Your task to perform on an android device: turn on showing notifications on the lock screen Image 0: 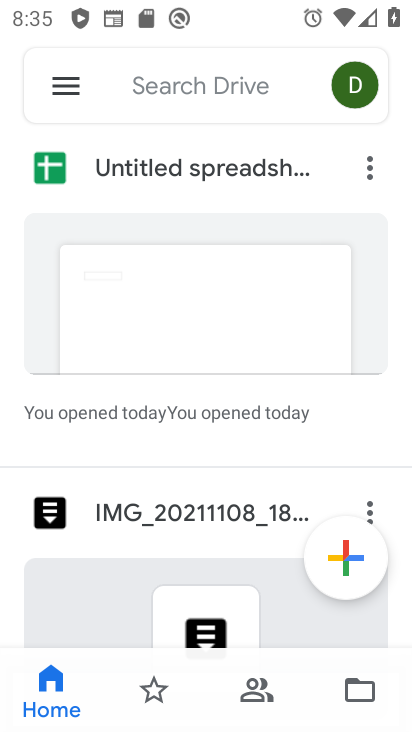
Step 0: press home button
Your task to perform on an android device: turn on showing notifications on the lock screen Image 1: 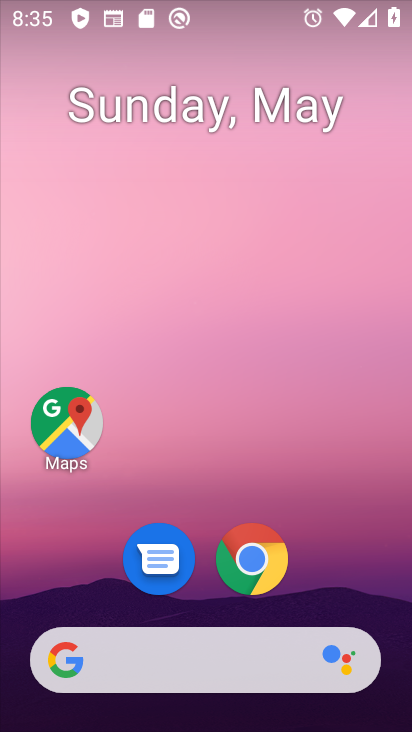
Step 1: task complete